Your task to perform on an android device: Open calendar and show me the second week of next month Image 0: 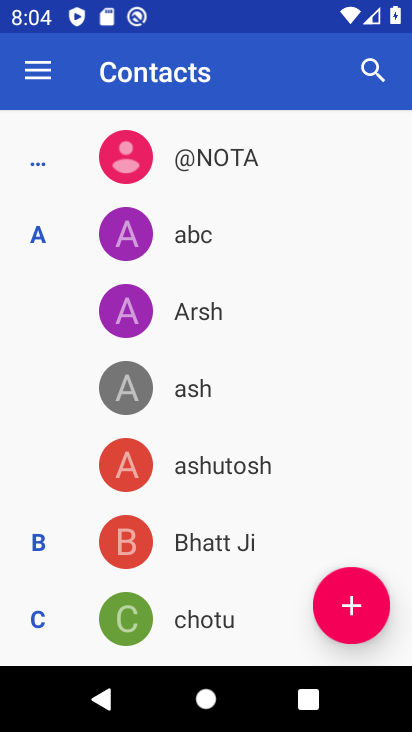
Step 0: press home button
Your task to perform on an android device: Open calendar and show me the second week of next month Image 1: 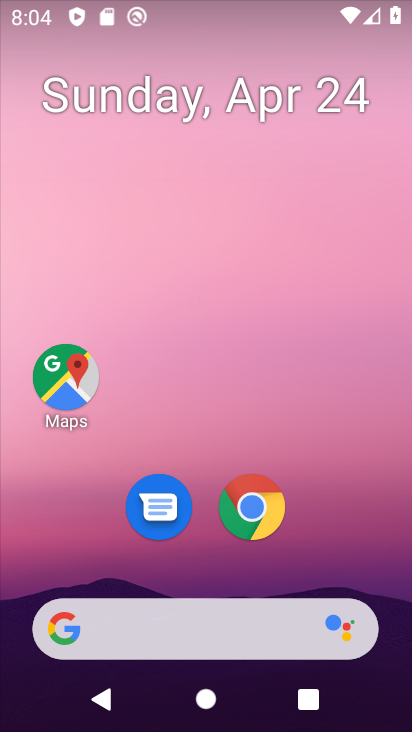
Step 1: drag from (158, 585) to (276, 40)
Your task to perform on an android device: Open calendar and show me the second week of next month Image 2: 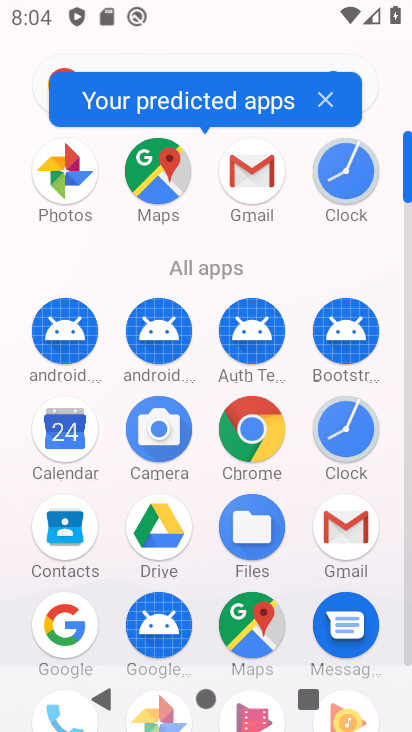
Step 2: click (73, 444)
Your task to perform on an android device: Open calendar and show me the second week of next month Image 3: 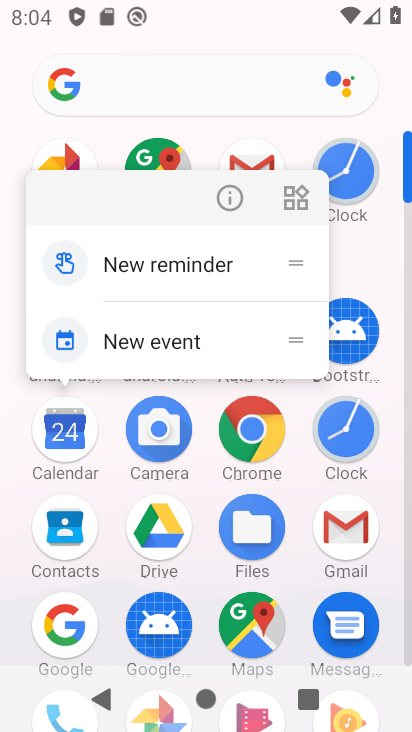
Step 3: click (64, 435)
Your task to perform on an android device: Open calendar and show me the second week of next month Image 4: 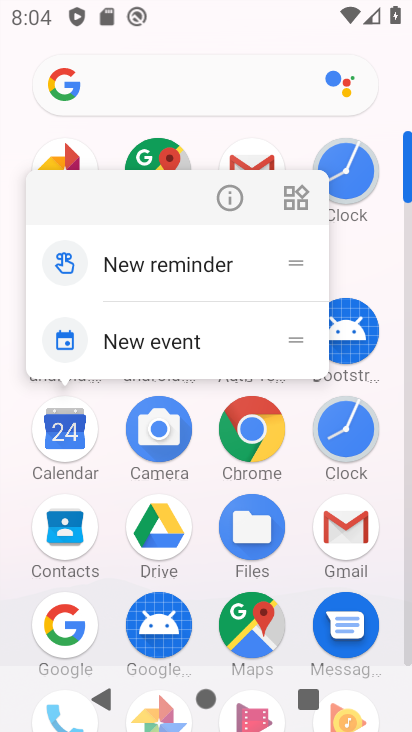
Step 4: click (77, 447)
Your task to perform on an android device: Open calendar and show me the second week of next month Image 5: 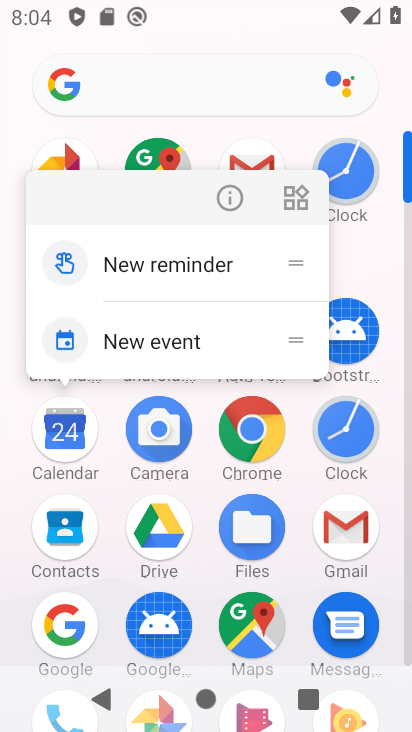
Step 5: click (76, 448)
Your task to perform on an android device: Open calendar and show me the second week of next month Image 6: 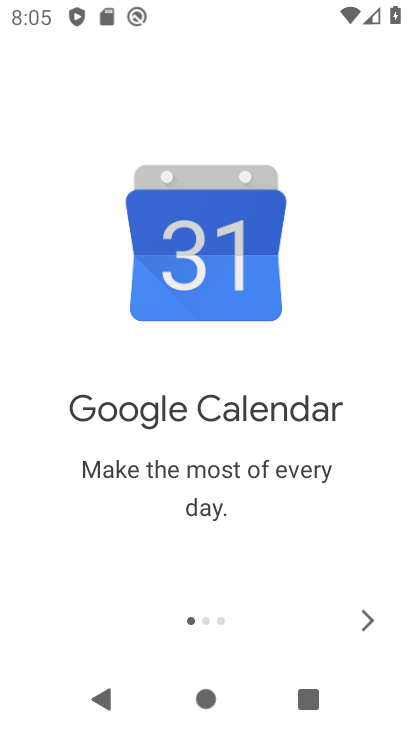
Step 6: click (349, 614)
Your task to perform on an android device: Open calendar and show me the second week of next month Image 7: 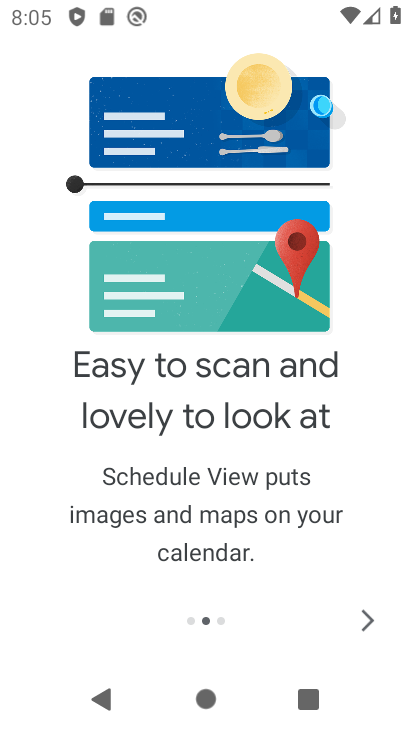
Step 7: click (378, 621)
Your task to perform on an android device: Open calendar and show me the second week of next month Image 8: 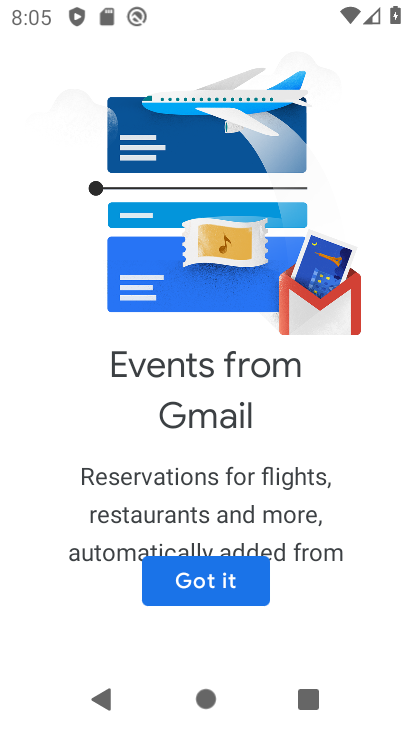
Step 8: click (249, 577)
Your task to perform on an android device: Open calendar and show me the second week of next month Image 9: 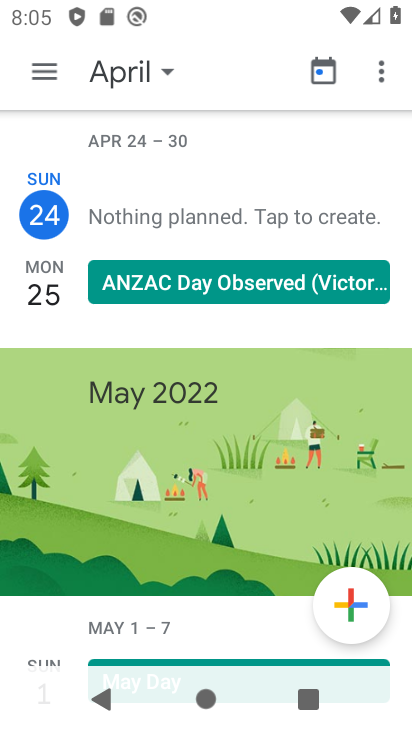
Step 9: click (120, 77)
Your task to perform on an android device: Open calendar and show me the second week of next month Image 10: 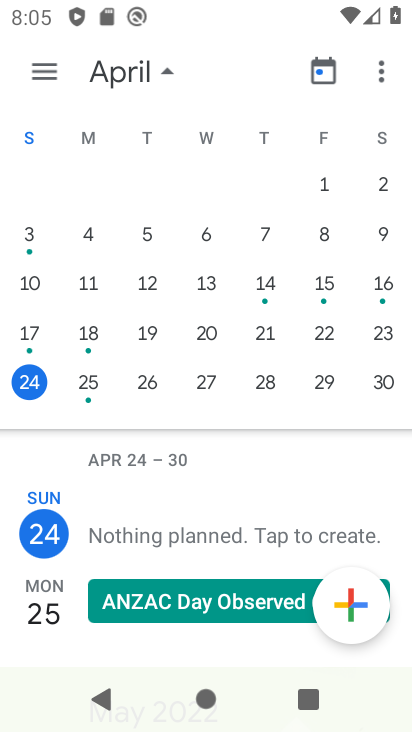
Step 10: drag from (220, 236) to (3, 227)
Your task to perform on an android device: Open calendar and show me the second week of next month Image 11: 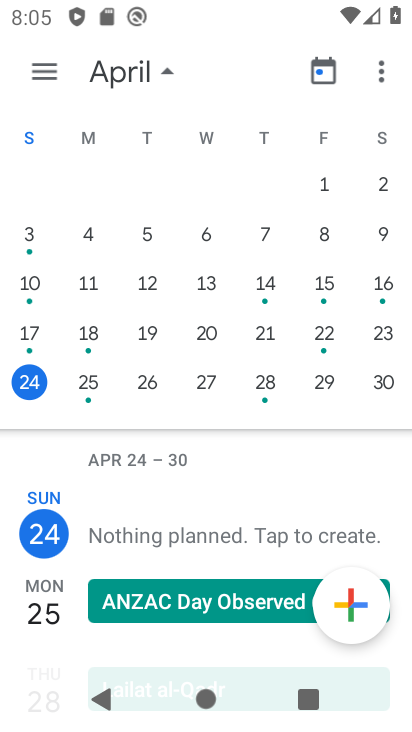
Step 11: drag from (348, 191) to (4, 200)
Your task to perform on an android device: Open calendar and show me the second week of next month Image 12: 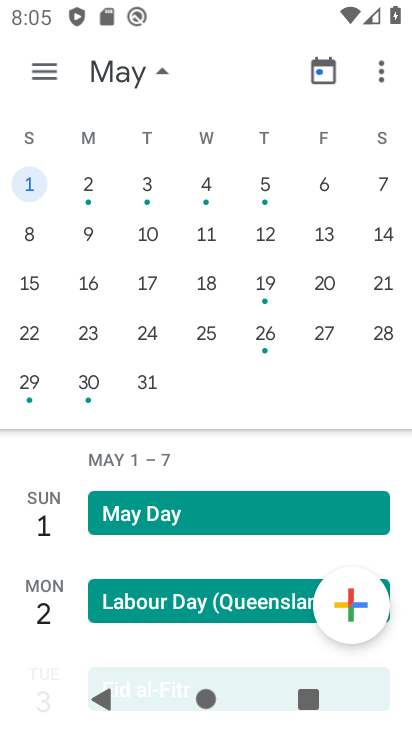
Step 12: click (29, 234)
Your task to perform on an android device: Open calendar and show me the second week of next month Image 13: 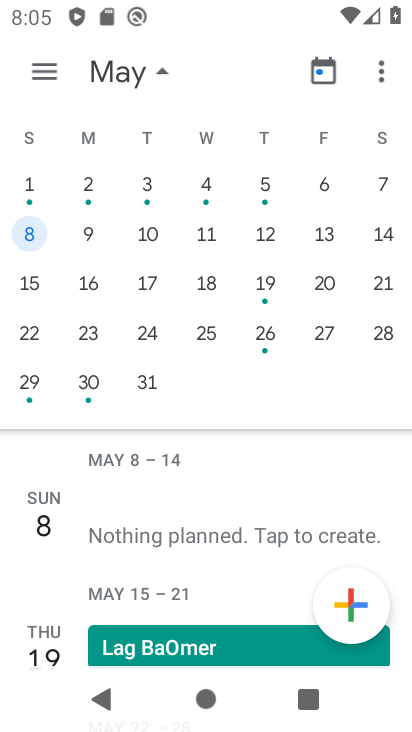
Step 13: click (58, 75)
Your task to perform on an android device: Open calendar and show me the second week of next month Image 14: 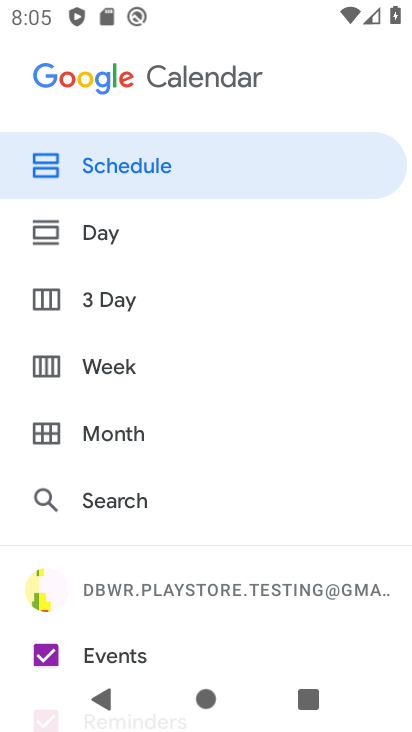
Step 14: click (119, 368)
Your task to perform on an android device: Open calendar and show me the second week of next month Image 15: 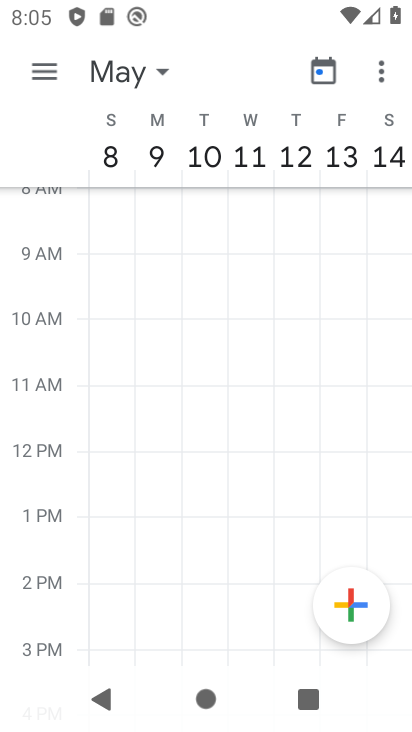
Step 15: click (63, 76)
Your task to perform on an android device: Open calendar and show me the second week of next month Image 16: 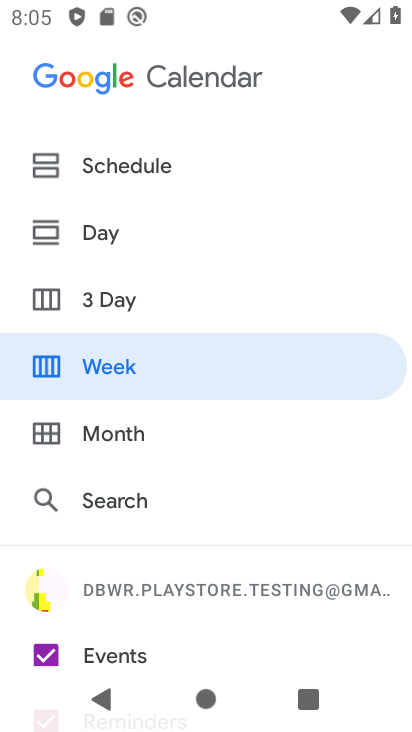
Step 16: click (156, 379)
Your task to perform on an android device: Open calendar and show me the second week of next month Image 17: 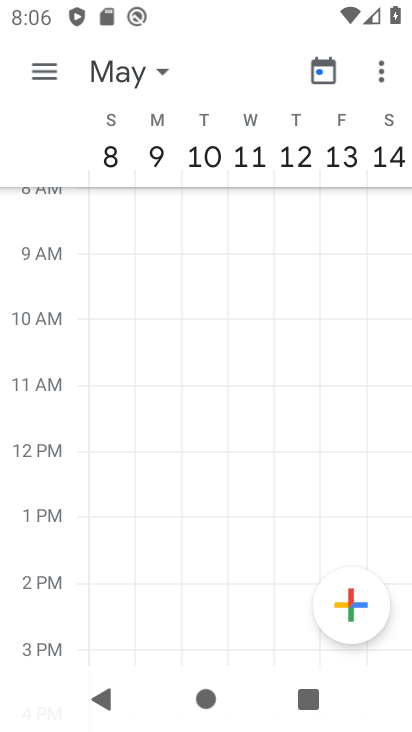
Step 17: task complete